Your task to perform on an android device: turn on the 24-hour format for clock Image 0: 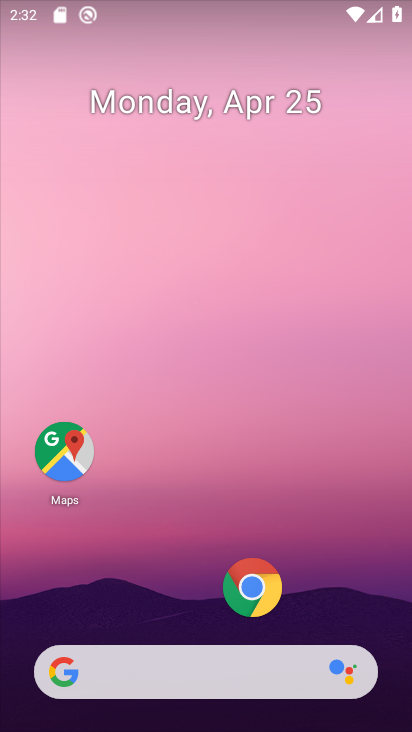
Step 0: press home button
Your task to perform on an android device: turn on the 24-hour format for clock Image 1: 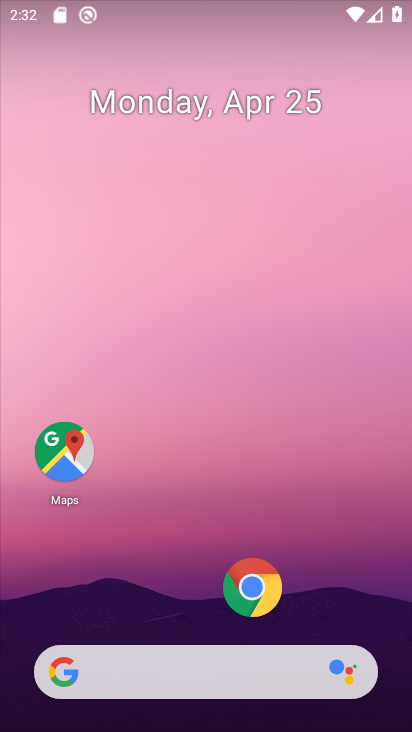
Step 1: drag from (196, 604) to (178, 135)
Your task to perform on an android device: turn on the 24-hour format for clock Image 2: 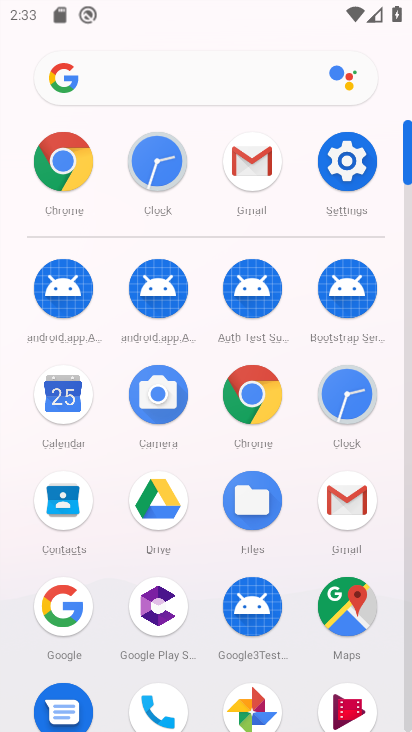
Step 2: click (340, 383)
Your task to perform on an android device: turn on the 24-hour format for clock Image 3: 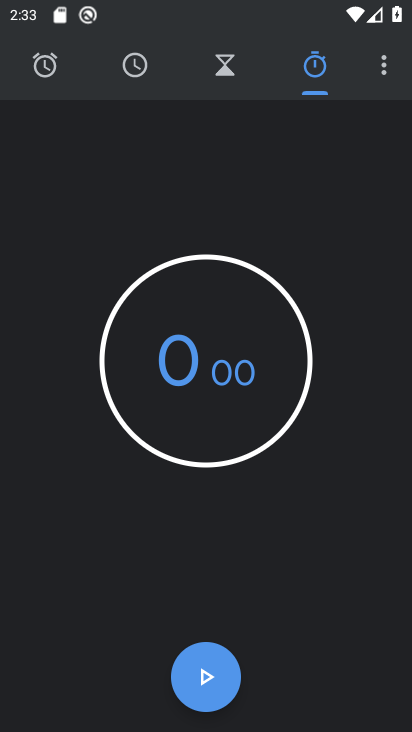
Step 3: click (385, 70)
Your task to perform on an android device: turn on the 24-hour format for clock Image 4: 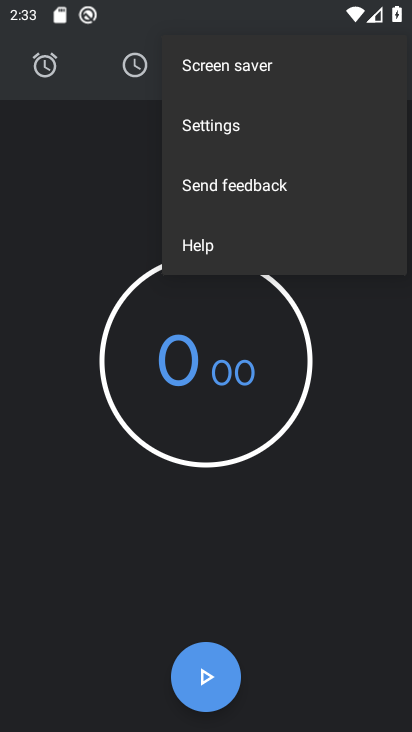
Step 4: click (246, 131)
Your task to perform on an android device: turn on the 24-hour format for clock Image 5: 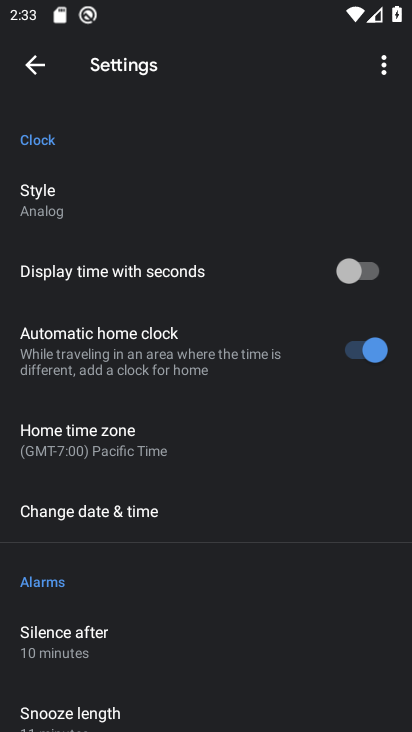
Step 5: click (179, 510)
Your task to perform on an android device: turn on the 24-hour format for clock Image 6: 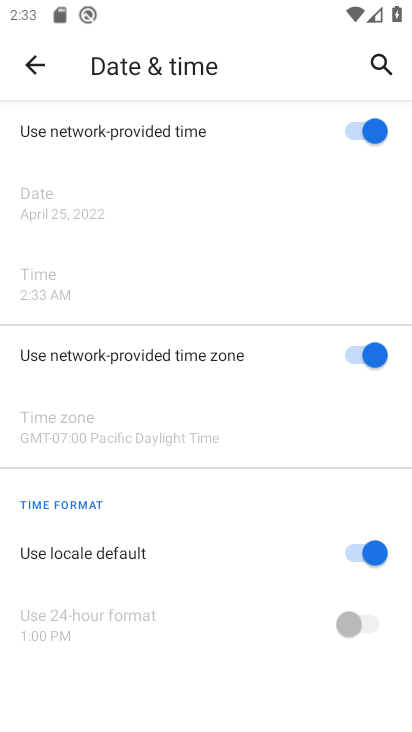
Step 6: click (352, 546)
Your task to perform on an android device: turn on the 24-hour format for clock Image 7: 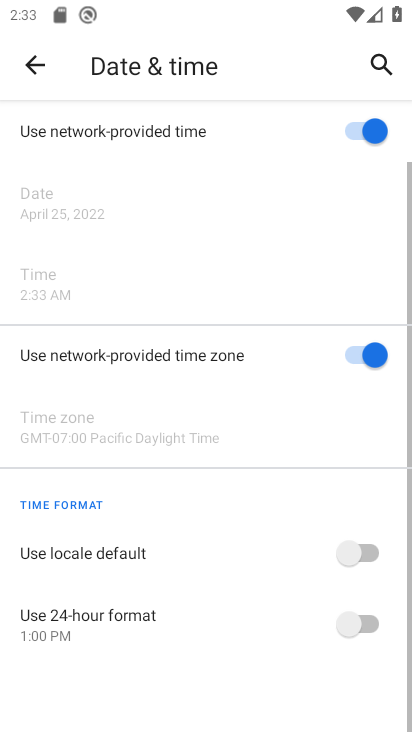
Step 7: click (361, 621)
Your task to perform on an android device: turn on the 24-hour format for clock Image 8: 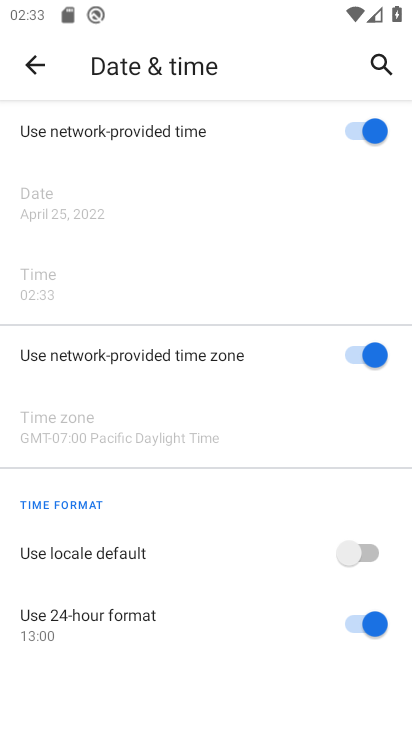
Step 8: task complete